Your task to perform on an android device: Open privacy settings Image 0: 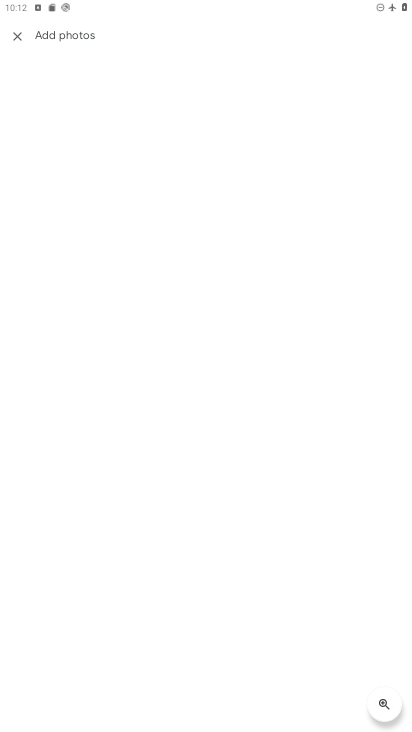
Step 0: press home button
Your task to perform on an android device: Open privacy settings Image 1: 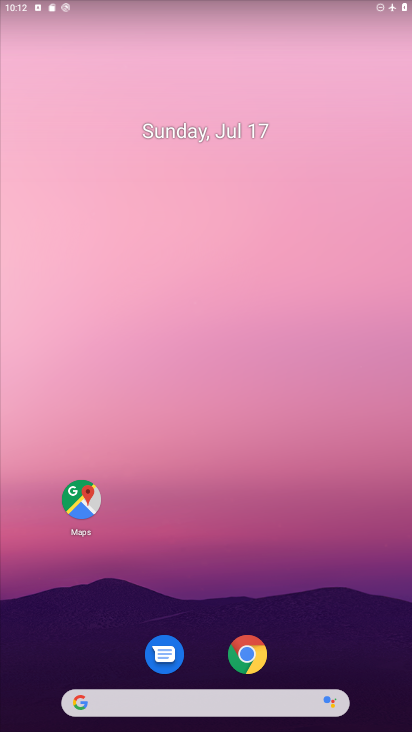
Step 1: drag from (201, 622) to (215, 103)
Your task to perform on an android device: Open privacy settings Image 2: 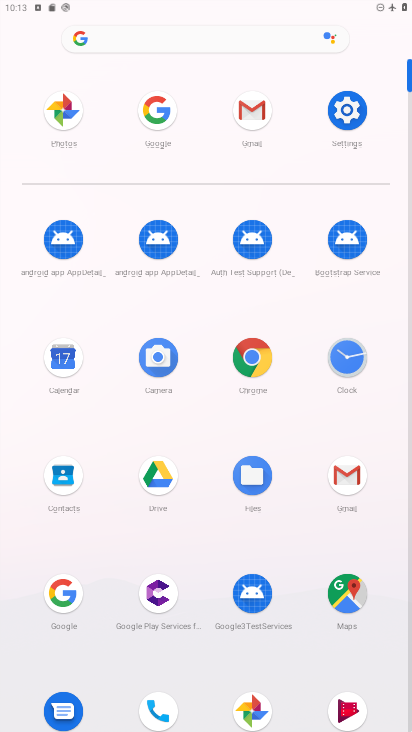
Step 2: click (347, 118)
Your task to perform on an android device: Open privacy settings Image 3: 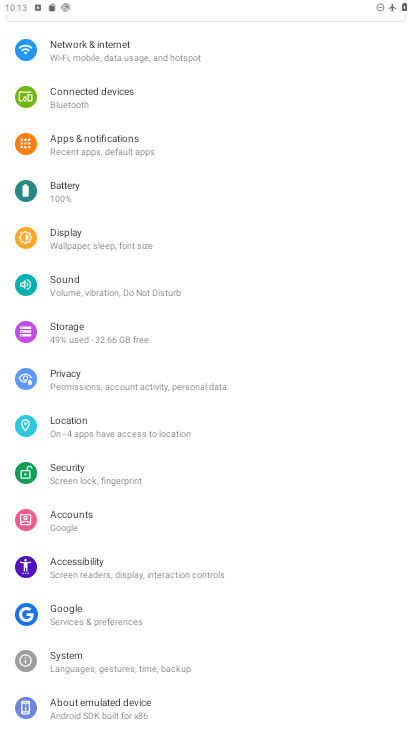
Step 3: click (122, 377)
Your task to perform on an android device: Open privacy settings Image 4: 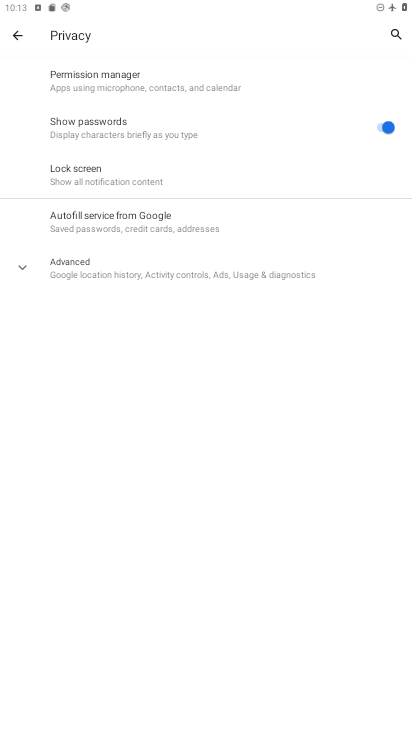
Step 4: task complete